Your task to perform on an android device: check google app version Image 0: 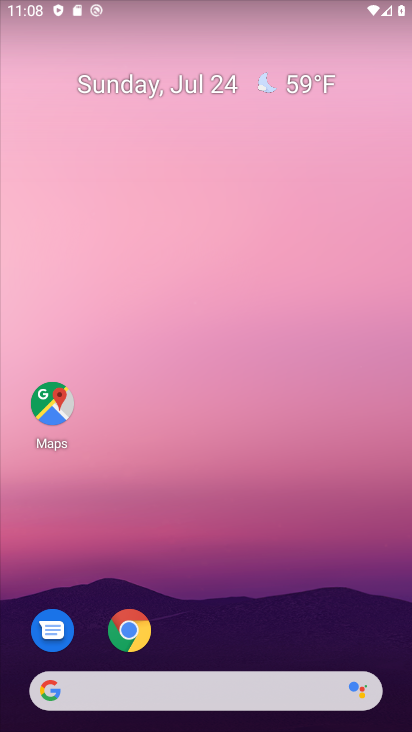
Step 0: drag from (210, 594) to (256, 0)
Your task to perform on an android device: check google app version Image 1: 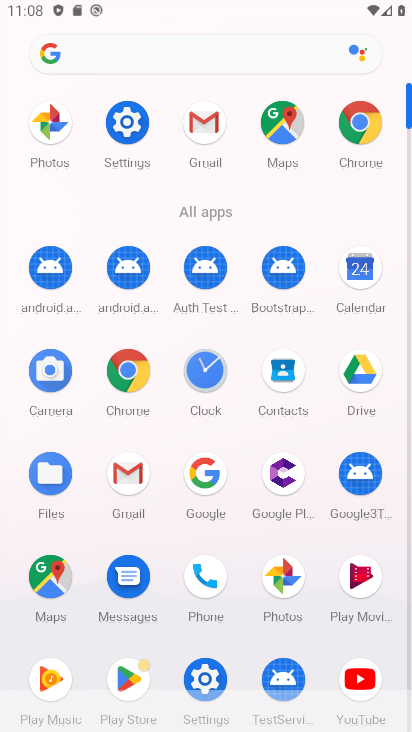
Step 1: click (203, 462)
Your task to perform on an android device: check google app version Image 2: 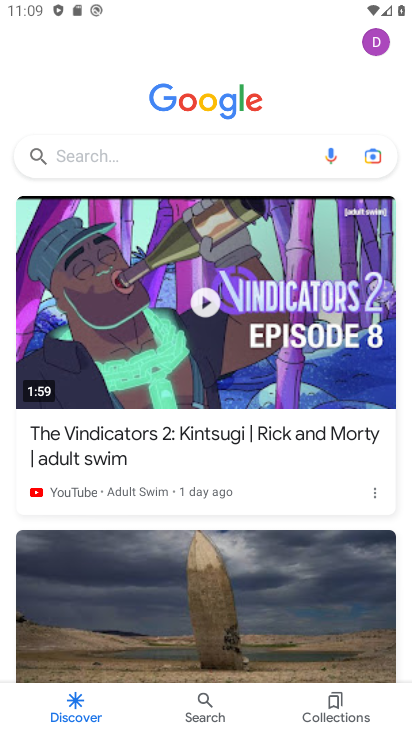
Step 2: click (365, 40)
Your task to perform on an android device: check google app version Image 3: 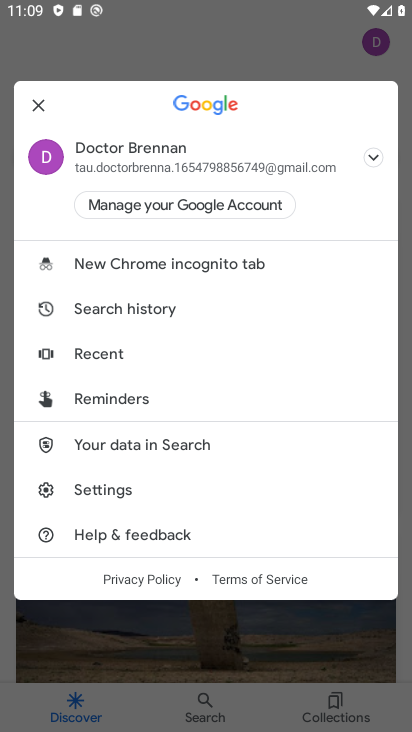
Step 3: click (136, 489)
Your task to perform on an android device: check google app version Image 4: 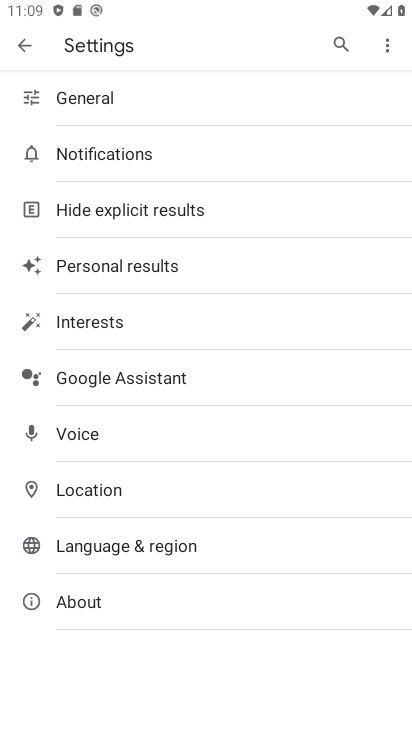
Step 4: click (138, 599)
Your task to perform on an android device: check google app version Image 5: 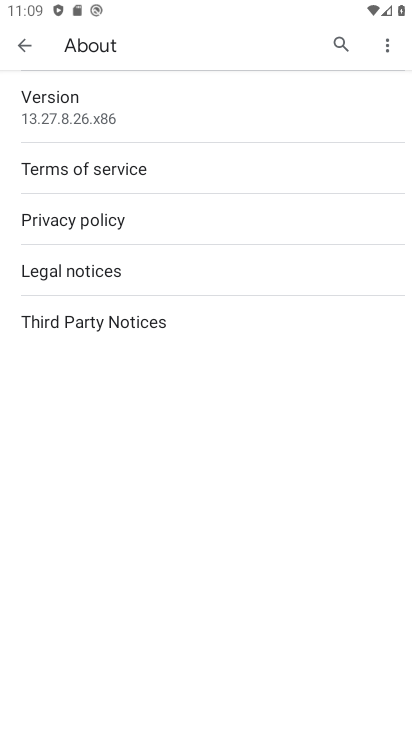
Step 5: task complete